Your task to perform on an android device: install app "Google Chat" Image 0: 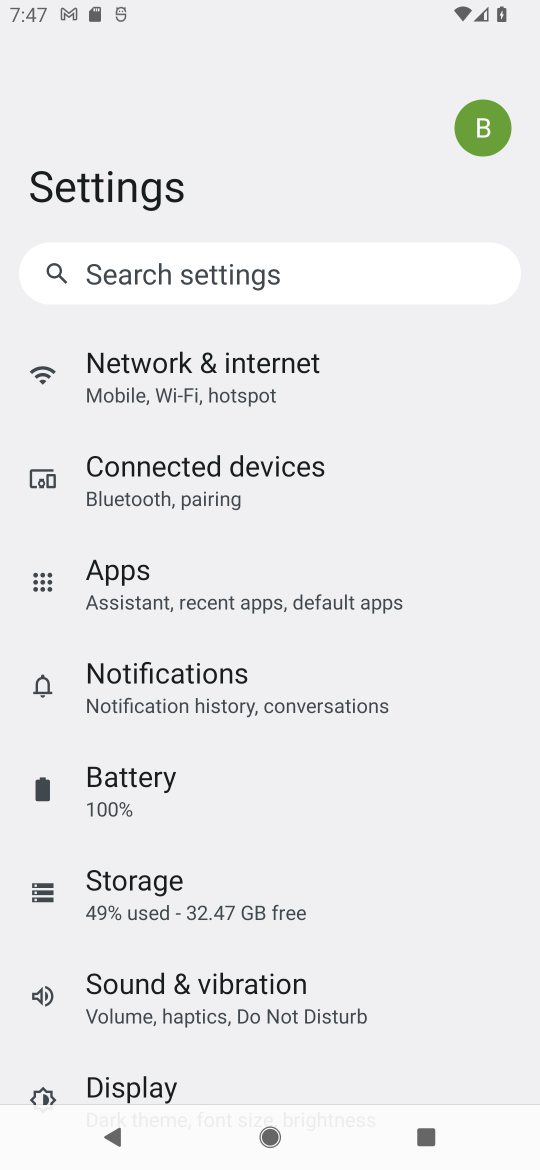
Step 0: press home button
Your task to perform on an android device: install app "Google Chat" Image 1: 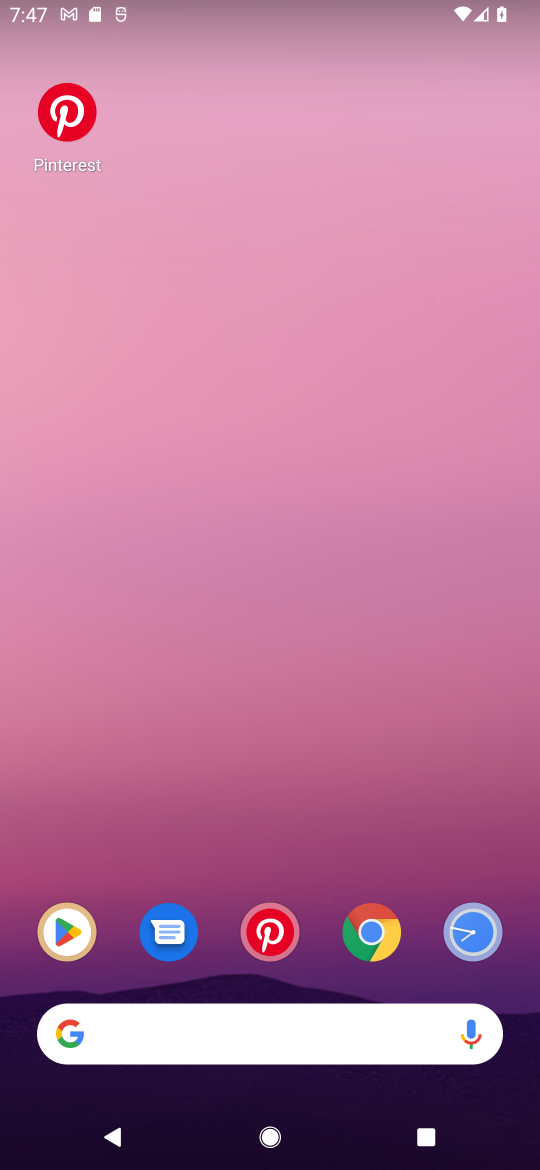
Step 1: click (67, 933)
Your task to perform on an android device: install app "Google Chat" Image 2: 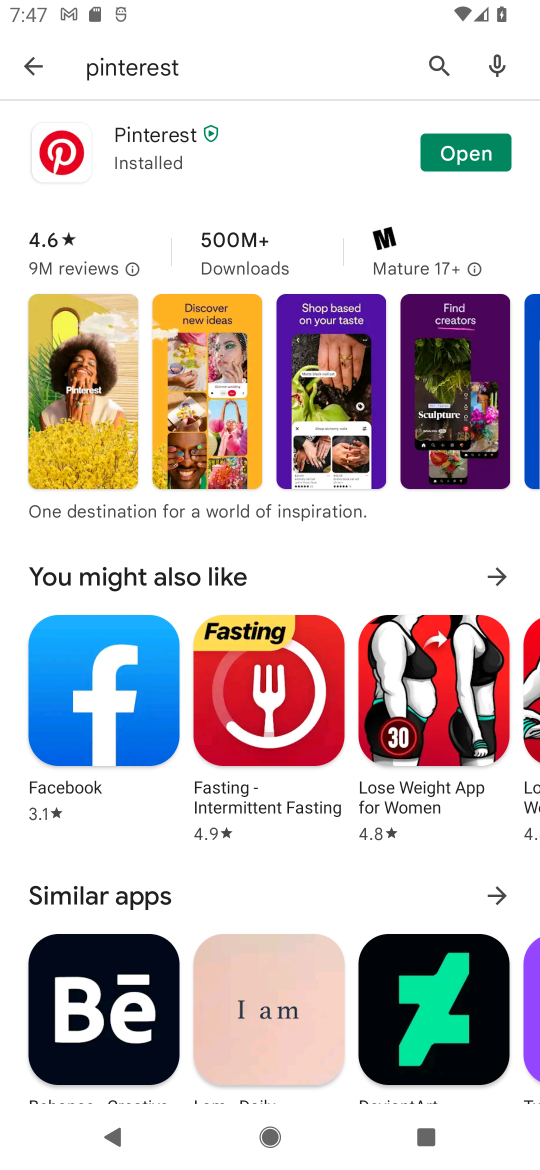
Step 2: click (197, 69)
Your task to perform on an android device: install app "Google Chat" Image 3: 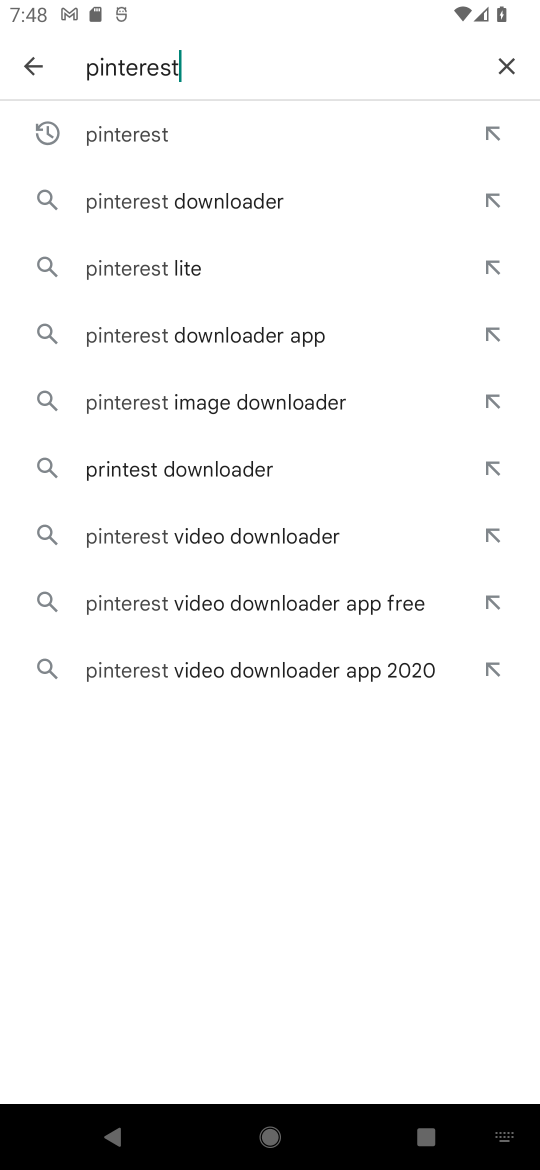
Step 3: click (508, 53)
Your task to perform on an android device: install app "Google Chat" Image 4: 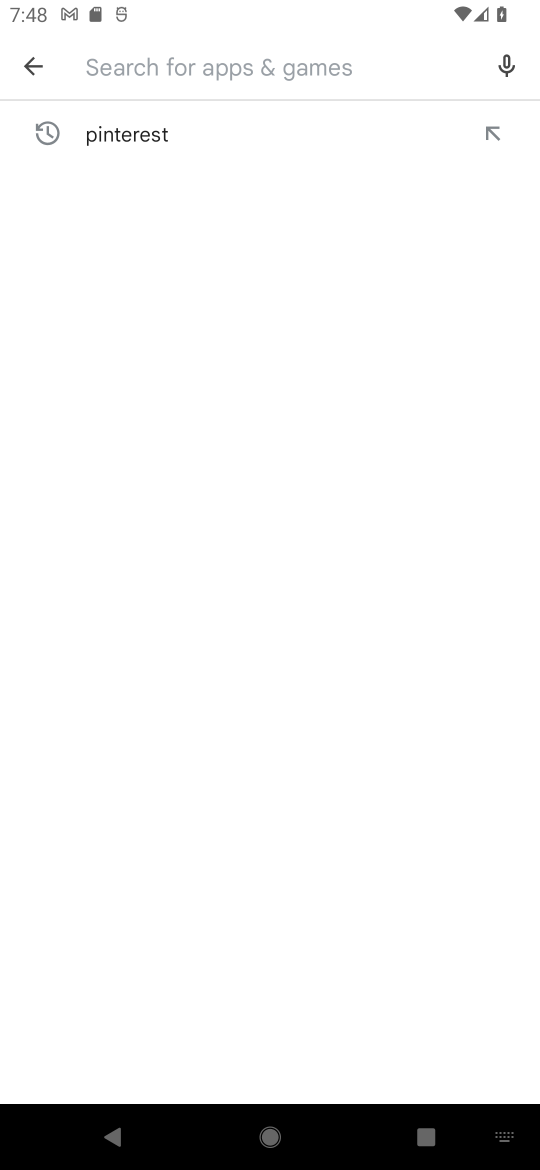
Step 4: type "google chat"
Your task to perform on an android device: install app "Google Chat" Image 5: 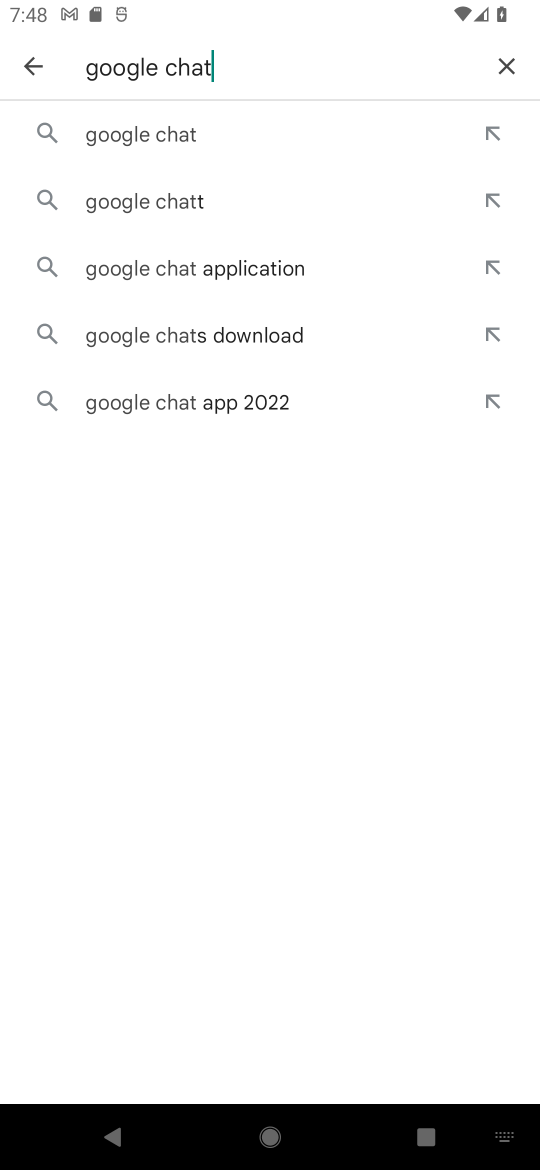
Step 5: click (120, 124)
Your task to perform on an android device: install app "Google Chat" Image 6: 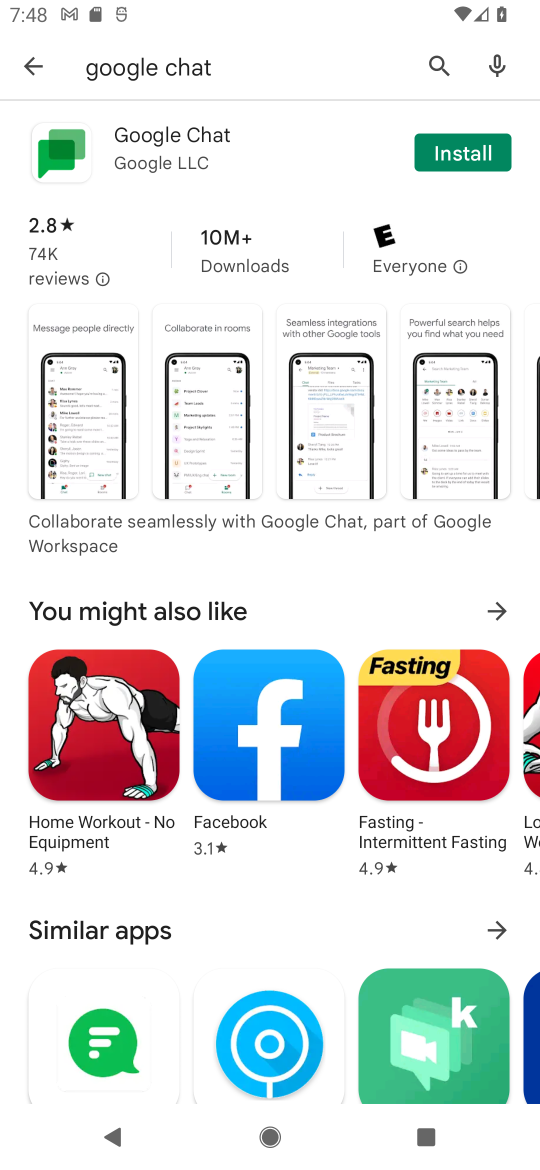
Step 6: click (485, 152)
Your task to perform on an android device: install app "Google Chat" Image 7: 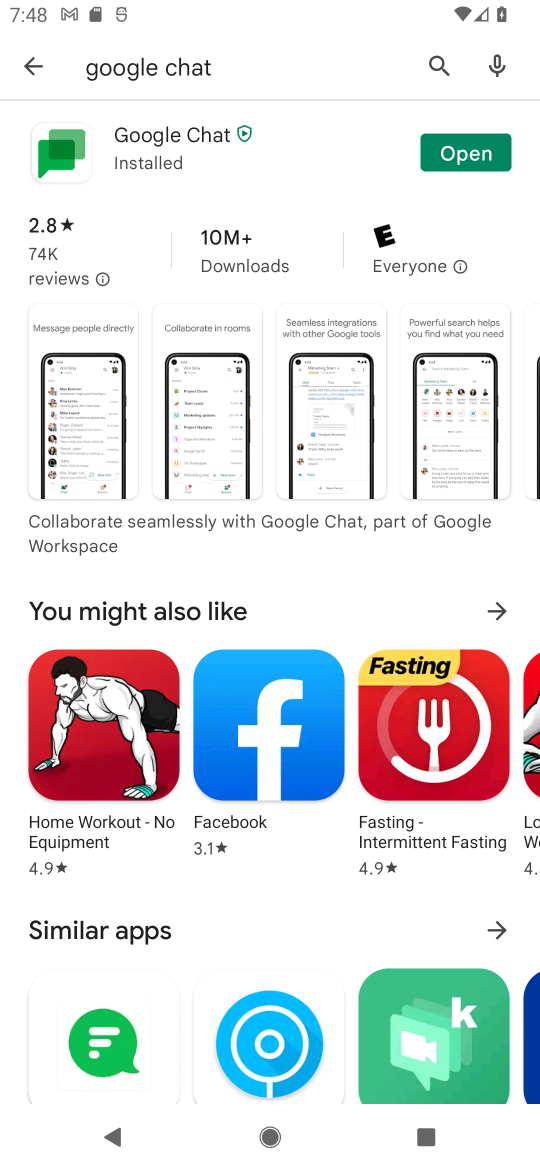
Step 7: task complete